Your task to perform on an android device: turn off translation in the chrome app Image 0: 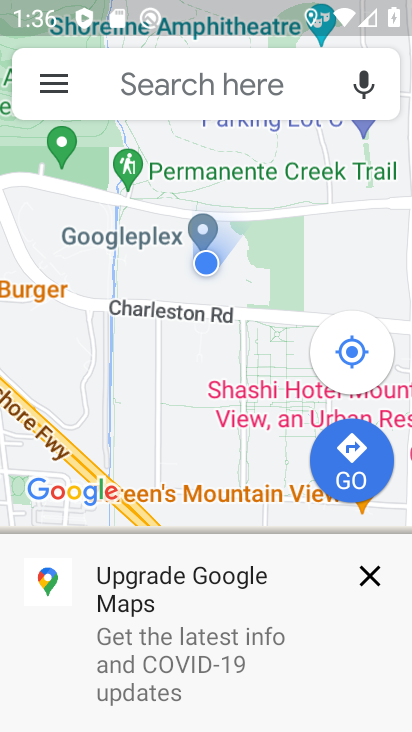
Step 0: press home button
Your task to perform on an android device: turn off translation in the chrome app Image 1: 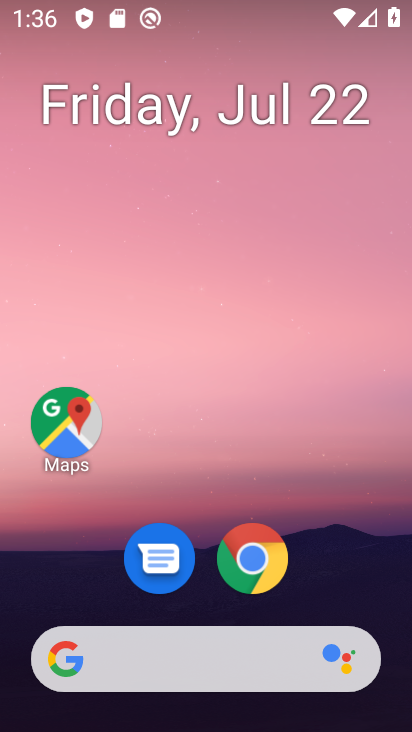
Step 1: click (270, 565)
Your task to perform on an android device: turn off translation in the chrome app Image 2: 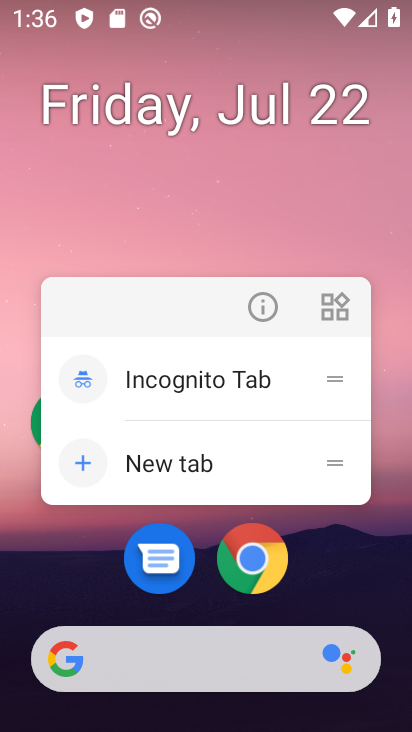
Step 2: click (260, 567)
Your task to perform on an android device: turn off translation in the chrome app Image 3: 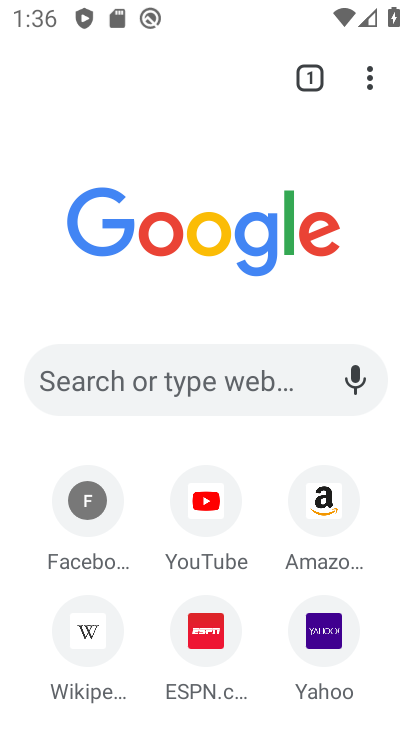
Step 3: click (379, 91)
Your task to perform on an android device: turn off translation in the chrome app Image 4: 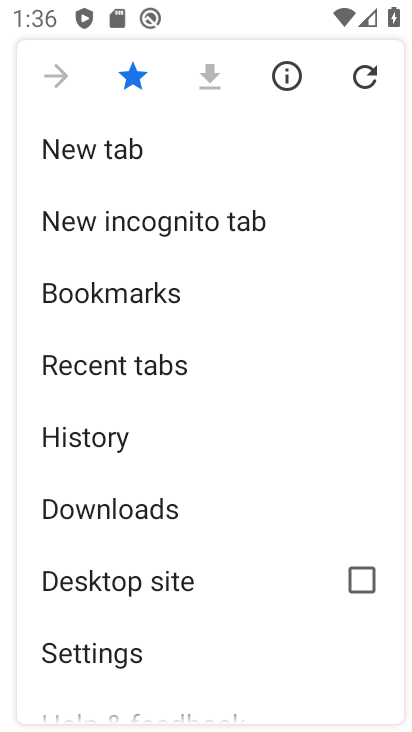
Step 4: drag from (180, 668) to (152, 329)
Your task to perform on an android device: turn off translation in the chrome app Image 5: 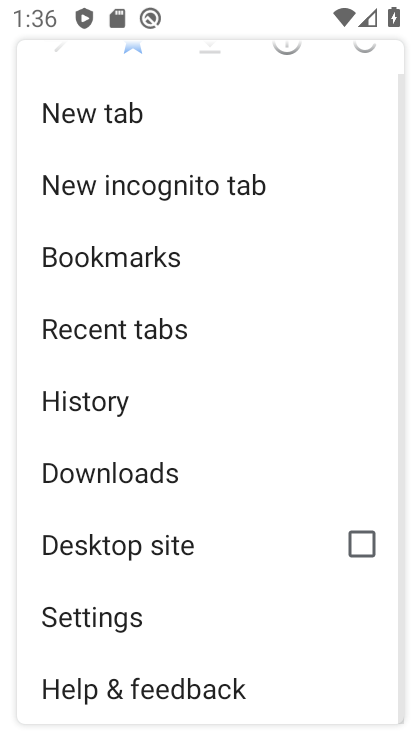
Step 5: click (149, 614)
Your task to perform on an android device: turn off translation in the chrome app Image 6: 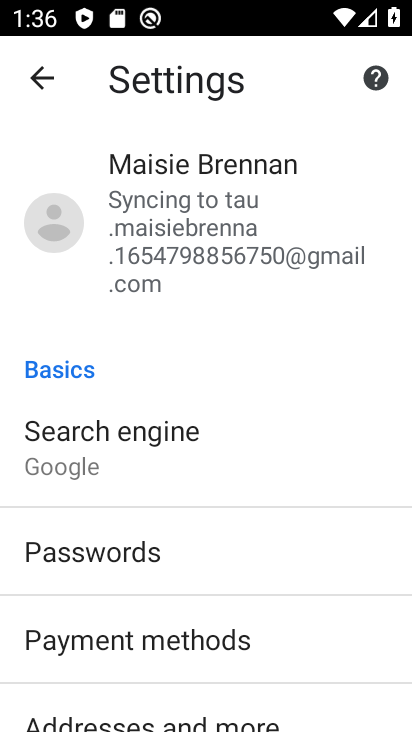
Step 6: drag from (184, 616) to (122, 137)
Your task to perform on an android device: turn off translation in the chrome app Image 7: 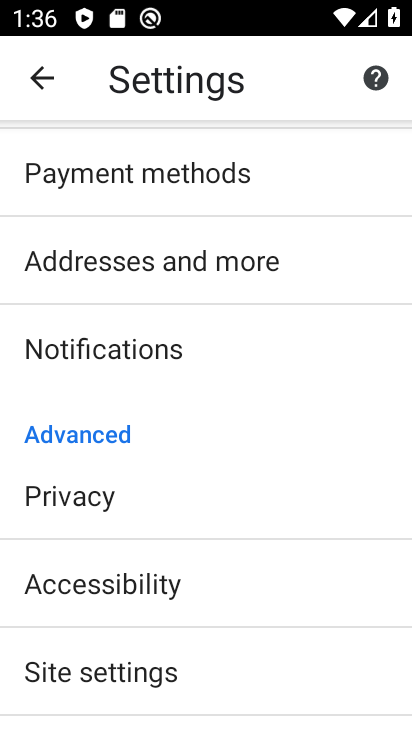
Step 7: drag from (212, 664) to (135, 310)
Your task to perform on an android device: turn off translation in the chrome app Image 8: 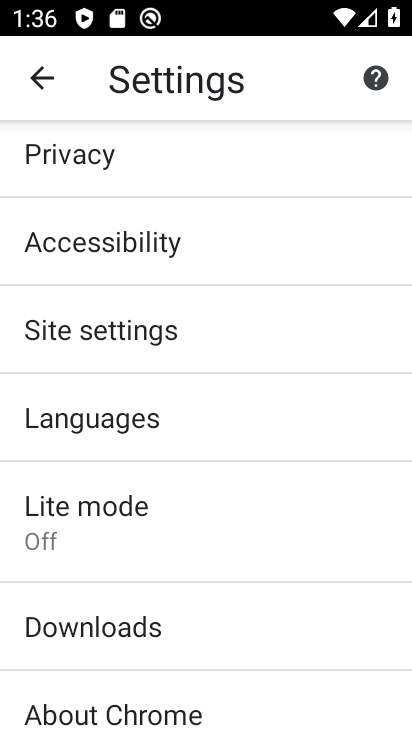
Step 8: click (158, 412)
Your task to perform on an android device: turn off translation in the chrome app Image 9: 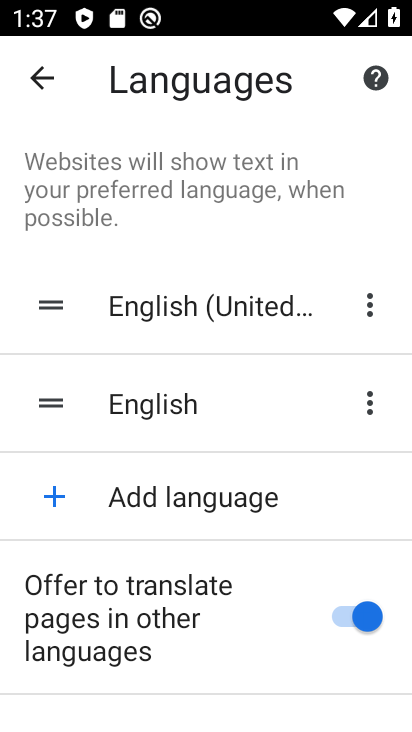
Step 9: click (351, 628)
Your task to perform on an android device: turn off translation in the chrome app Image 10: 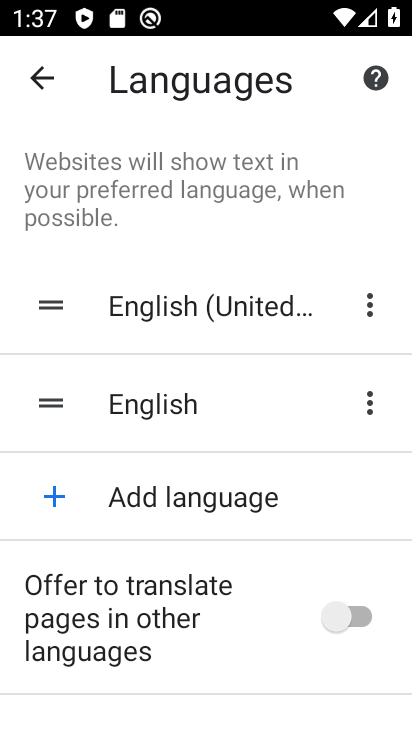
Step 10: task complete